Your task to perform on an android device: change the upload size in google photos Image 0: 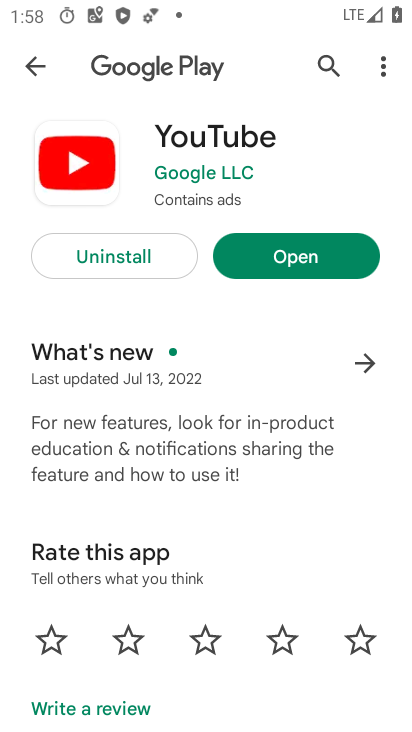
Step 0: press home button
Your task to perform on an android device: change the upload size in google photos Image 1: 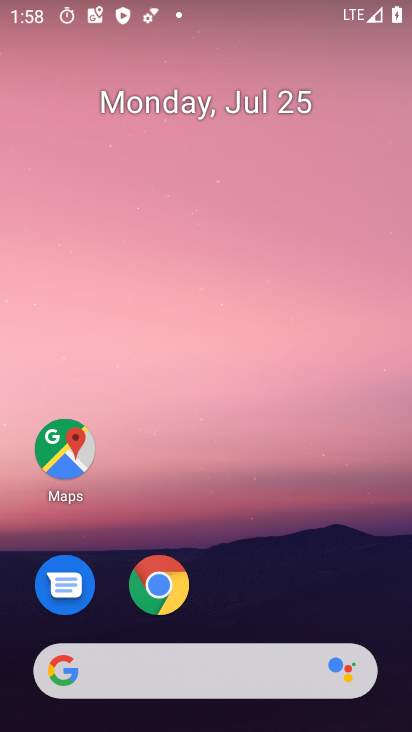
Step 1: drag from (204, 652) to (177, 239)
Your task to perform on an android device: change the upload size in google photos Image 2: 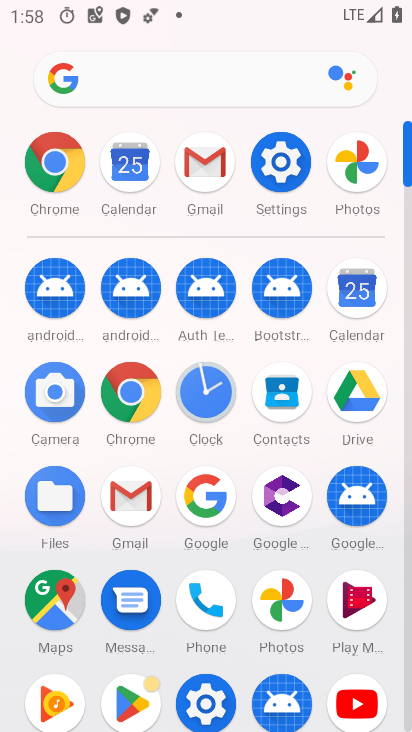
Step 2: click (279, 586)
Your task to perform on an android device: change the upload size in google photos Image 3: 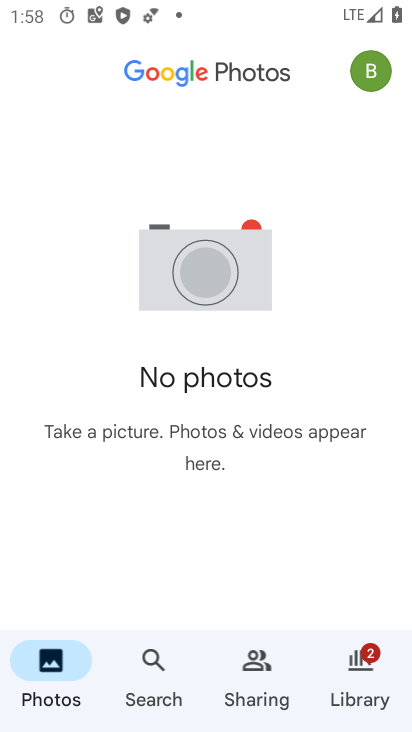
Step 3: click (371, 83)
Your task to perform on an android device: change the upload size in google photos Image 4: 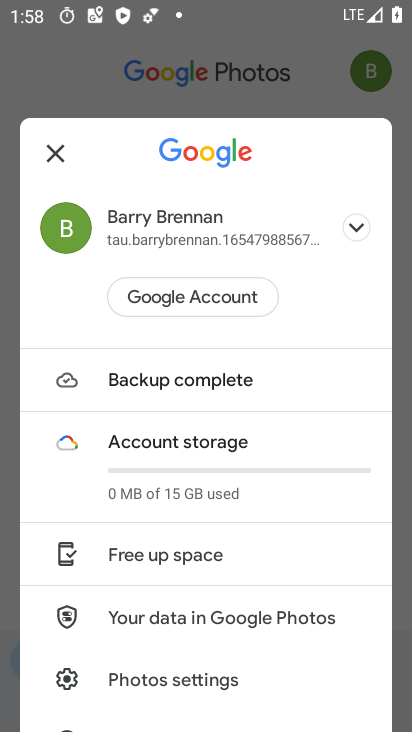
Step 4: drag from (151, 527) to (116, 7)
Your task to perform on an android device: change the upload size in google photos Image 5: 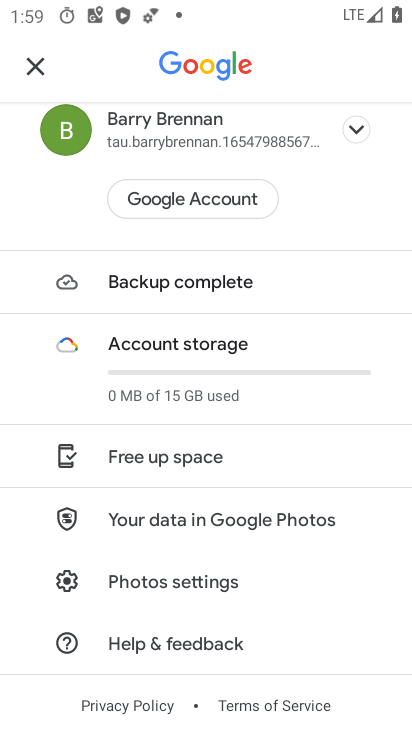
Step 5: click (184, 576)
Your task to perform on an android device: change the upload size in google photos Image 6: 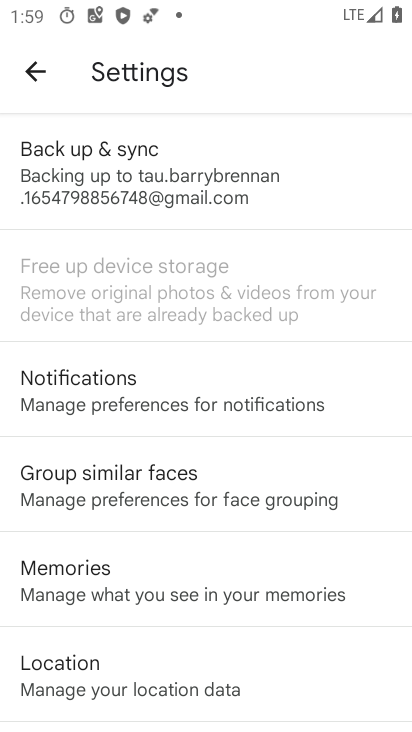
Step 6: click (140, 188)
Your task to perform on an android device: change the upload size in google photos Image 7: 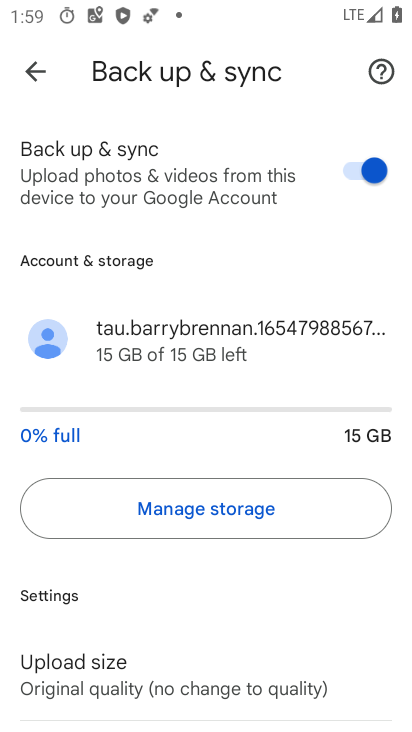
Step 7: click (135, 683)
Your task to perform on an android device: change the upload size in google photos Image 8: 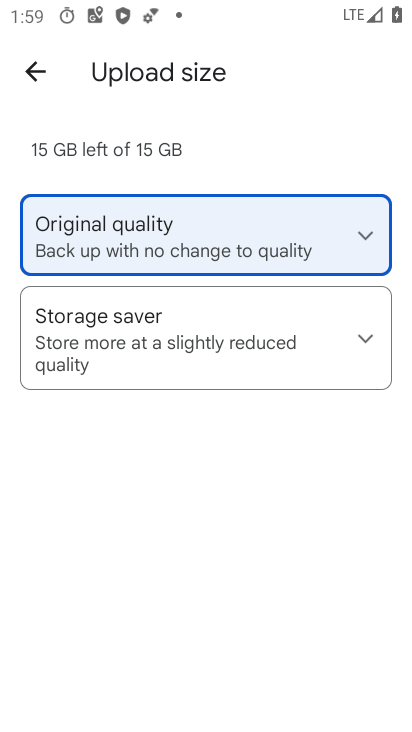
Step 8: click (108, 402)
Your task to perform on an android device: change the upload size in google photos Image 9: 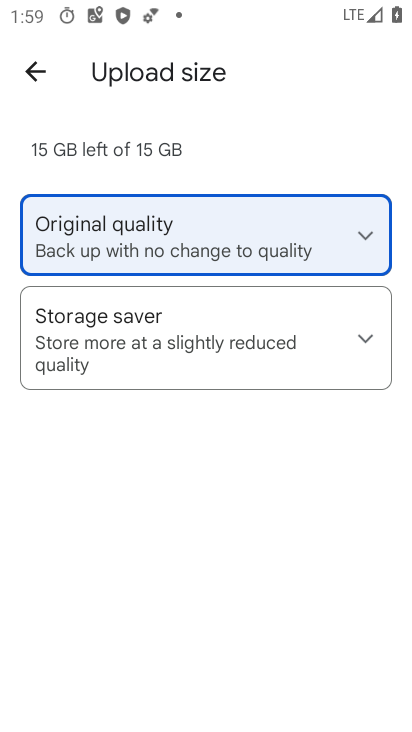
Step 9: click (91, 379)
Your task to perform on an android device: change the upload size in google photos Image 10: 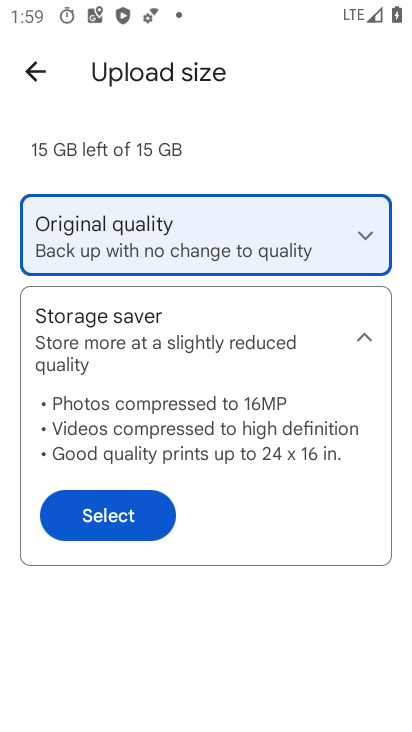
Step 10: click (107, 499)
Your task to perform on an android device: change the upload size in google photos Image 11: 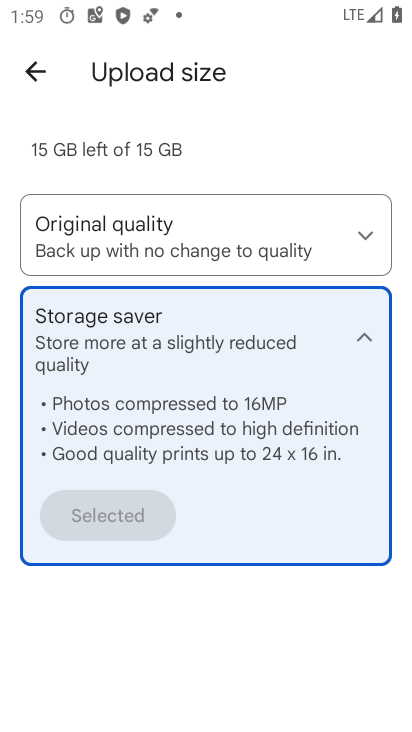
Step 11: task complete